Your task to perform on an android device: Show me popular videos on Youtube Image 0: 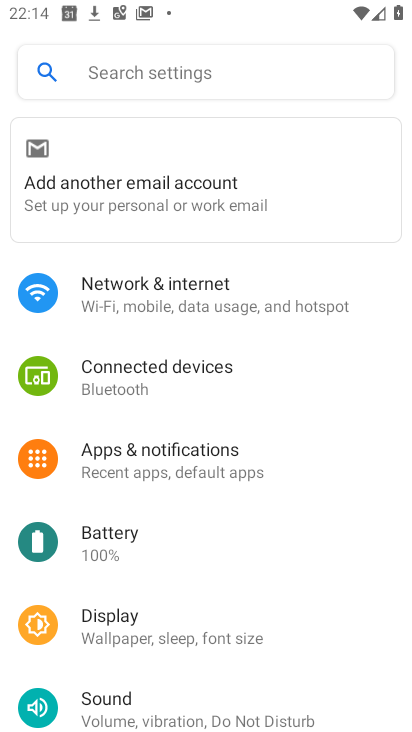
Step 0: press home button
Your task to perform on an android device: Show me popular videos on Youtube Image 1: 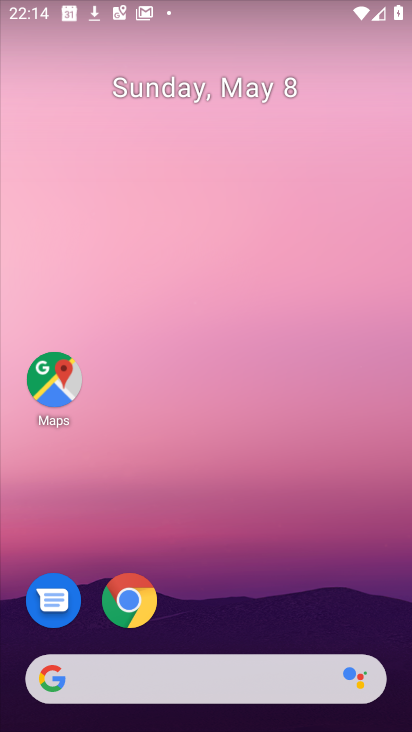
Step 1: drag from (277, 691) to (326, 143)
Your task to perform on an android device: Show me popular videos on Youtube Image 2: 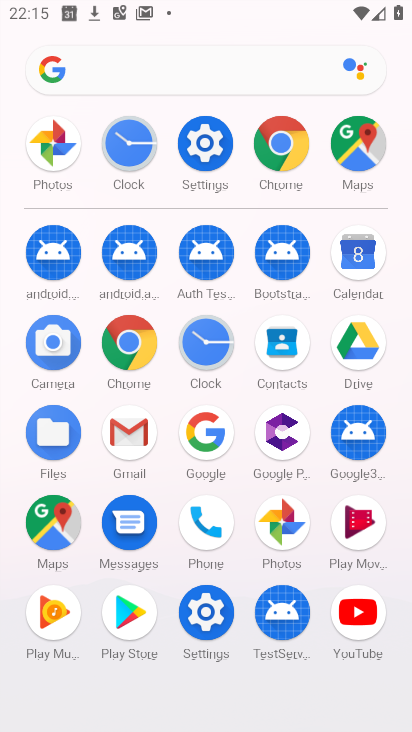
Step 2: click (357, 610)
Your task to perform on an android device: Show me popular videos on Youtube Image 3: 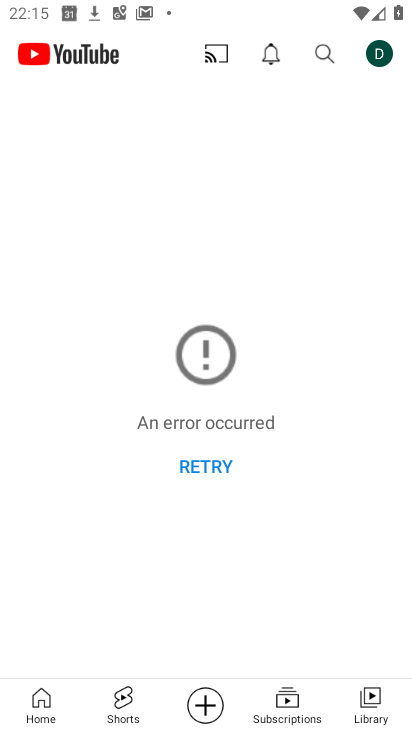
Step 3: click (325, 63)
Your task to perform on an android device: Show me popular videos on Youtube Image 4: 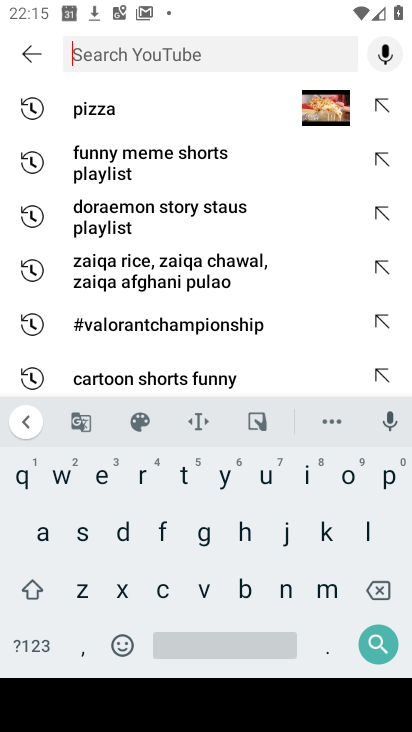
Step 4: click (381, 485)
Your task to perform on an android device: Show me popular videos on Youtube Image 5: 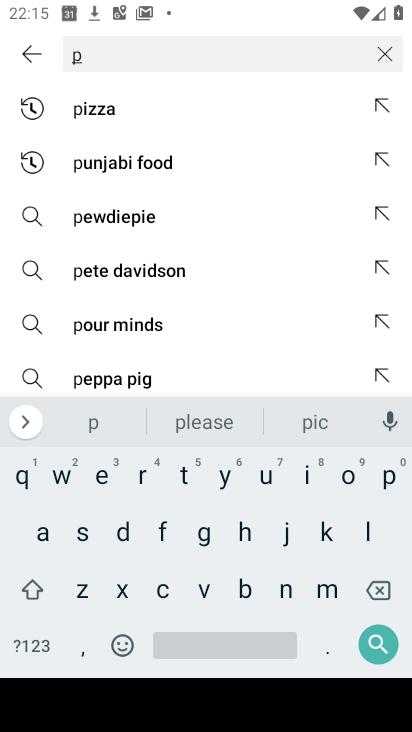
Step 5: click (348, 478)
Your task to perform on an android device: Show me popular videos on Youtube Image 6: 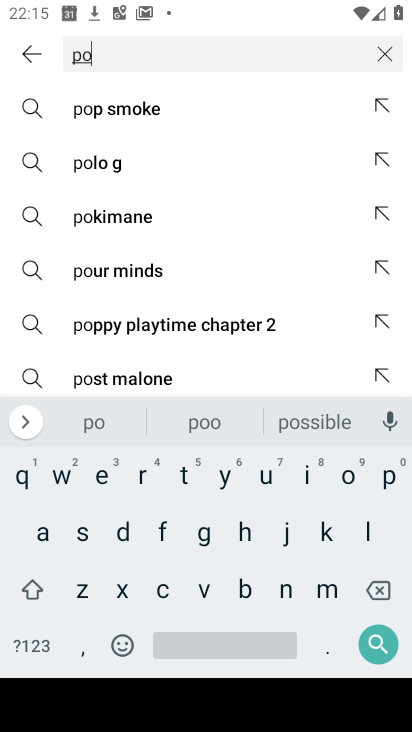
Step 6: click (384, 481)
Your task to perform on an android device: Show me popular videos on Youtube Image 7: 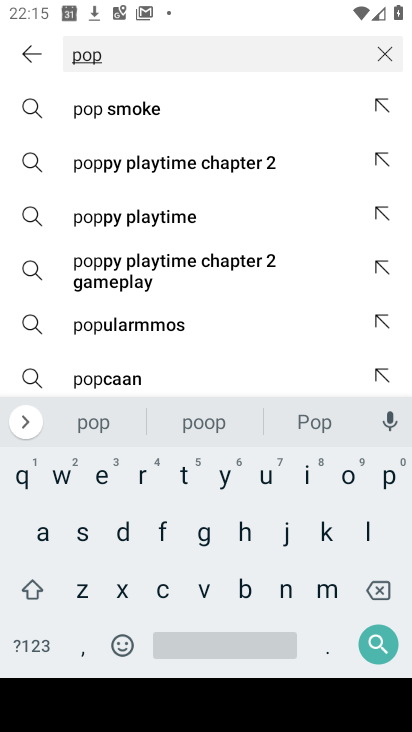
Step 7: click (275, 485)
Your task to perform on an android device: Show me popular videos on Youtube Image 8: 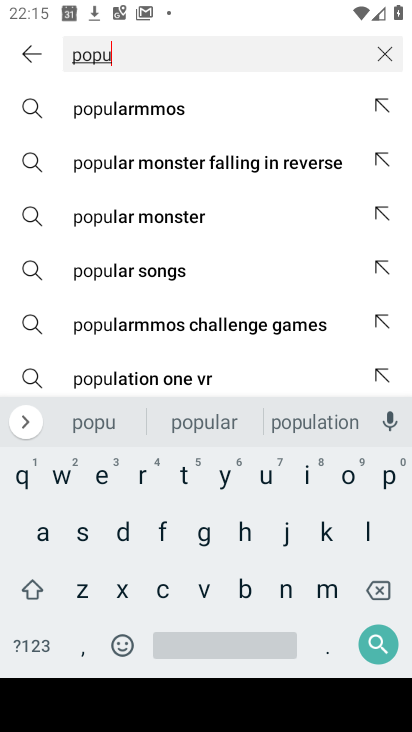
Step 8: click (216, 420)
Your task to perform on an android device: Show me popular videos on Youtube Image 9: 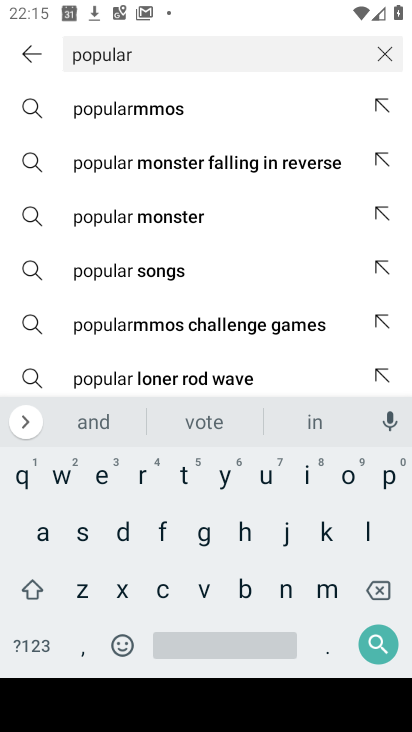
Step 9: click (203, 591)
Your task to perform on an android device: Show me popular videos on Youtube Image 10: 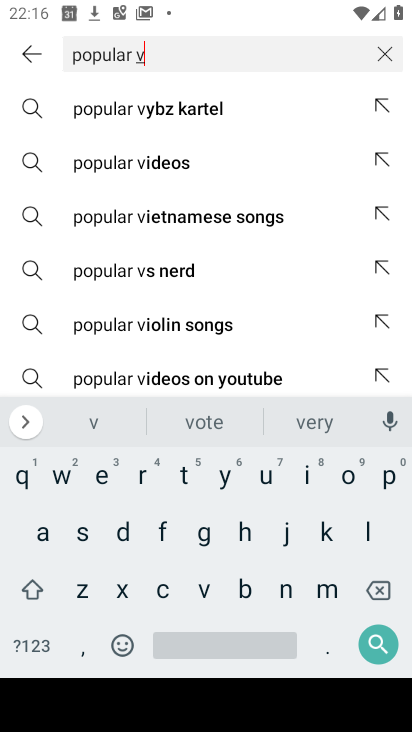
Step 10: click (195, 167)
Your task to perform on an android device: Show me popular videos on Youtube Image 11: 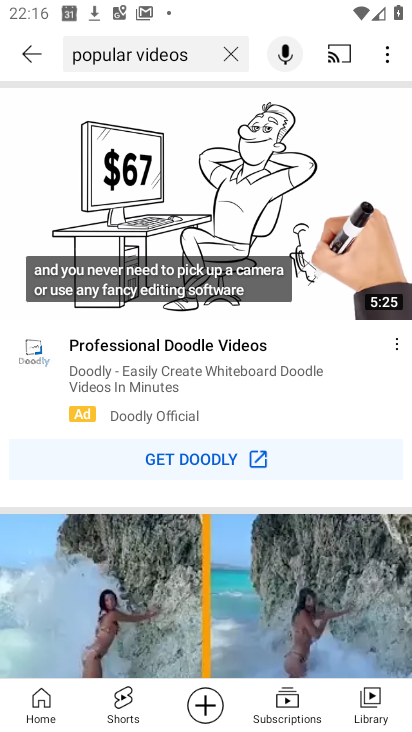
Step 11: task complete